Your task to perform on an android device: open a bookmark in the chrome app Image 0: 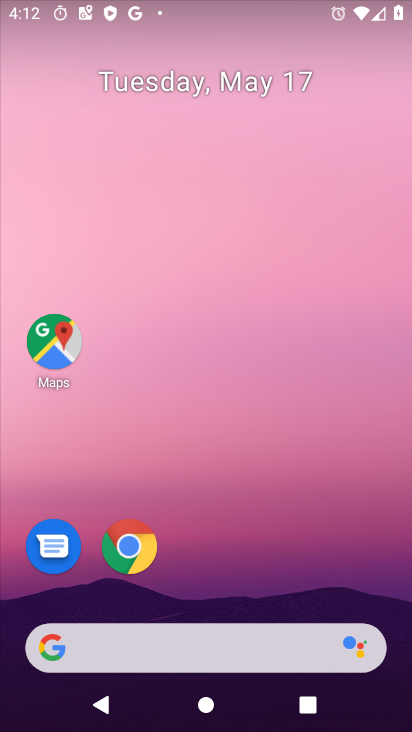
Step 0: click (123, 542)
Your task to perform on an android device: open a bookmark in the chrome app Image 1: 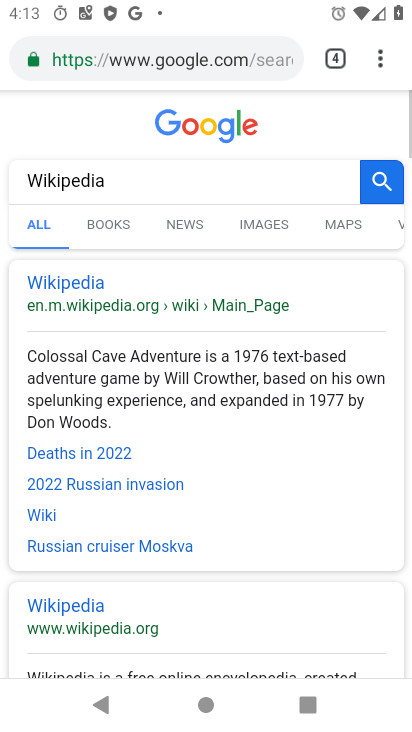
Step 1: click (375, 51)
Your task to perform on an android device: open a bookmark in the chrome app Image 2: 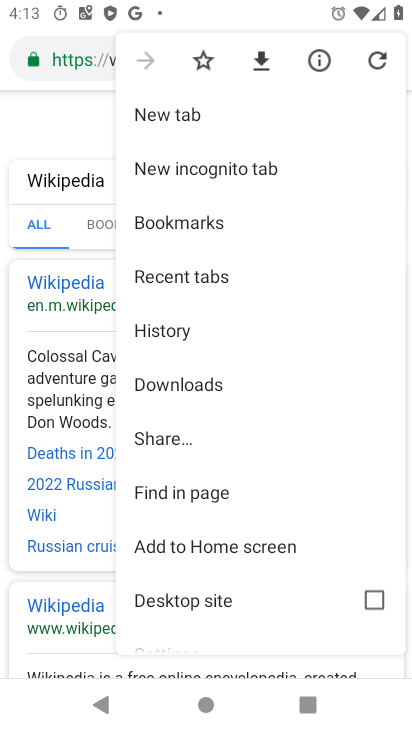
Step 2: click (171, 223)
Your task to perform on an android device: open a bookmark in the chrome app Image 3: 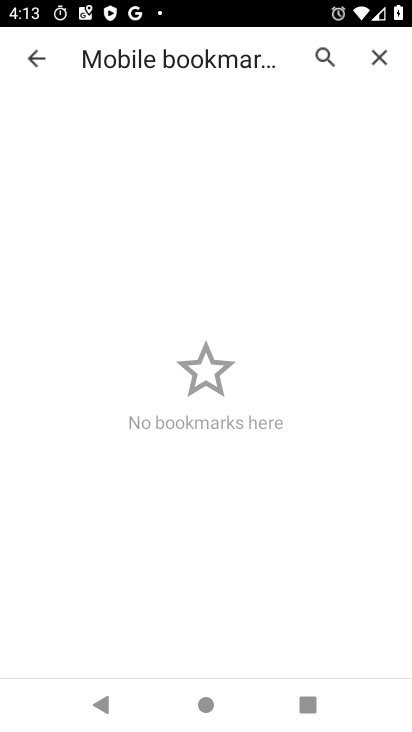
Step 3: task complete